Your task to perform on an android device: toggle notifications settings in the gmail app Image 0: 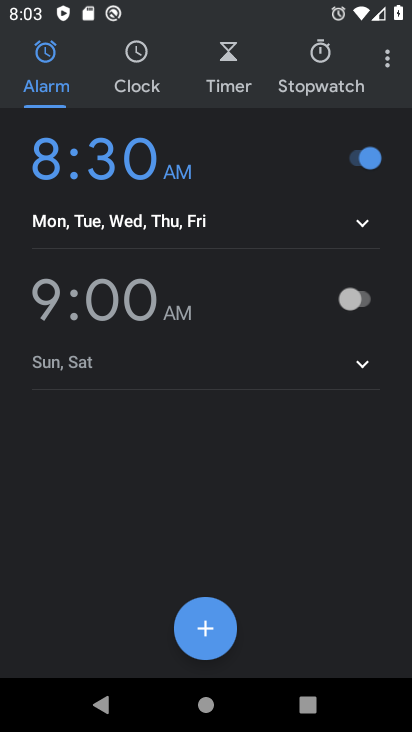
Step 0: press home button
Your task to perform on an android device: toggle notifications settings in the gmail app Image 1: 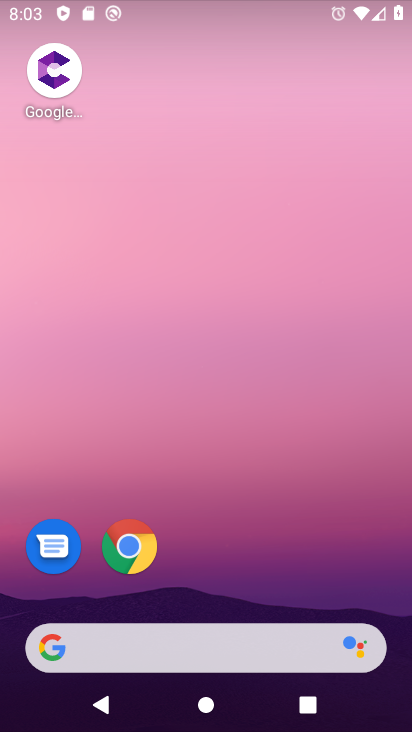
Step 1: drag from (265, 638) to (364, 4)
Your task to perform on an android device: toggle notifications settings in the gmail app Image 2: 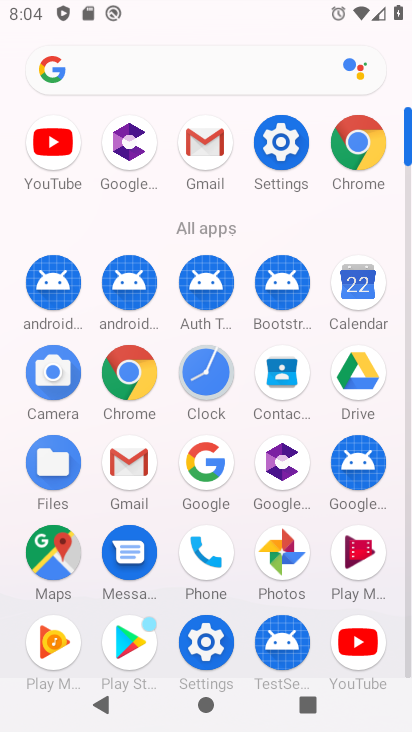
Step 2: click (126, 473)
Your task to perform on an android device: toggle notifications settings in the gmail app Image 3: 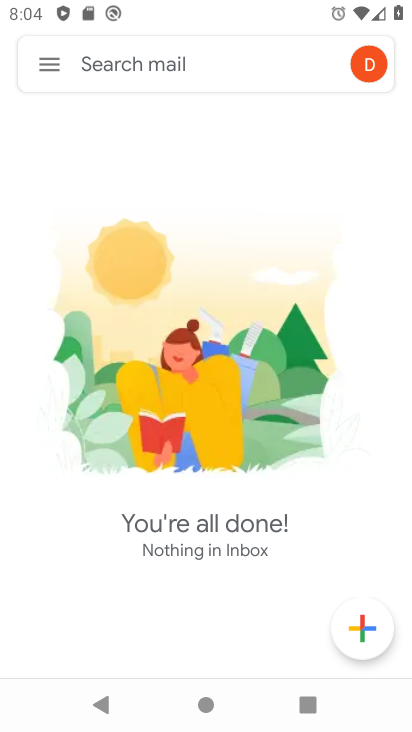
Step 3: drag from (46, 65) to (46, 105)
Your task to perform on an android device: toggle notifications settings in the gmail app Image 4: 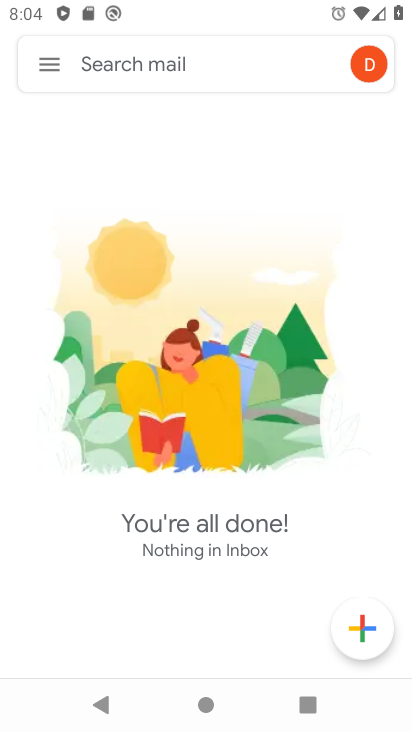
Step 4: click (48, 54)
Your task to perform on an android device: toggle notifications settings in the gmail app Image 5: 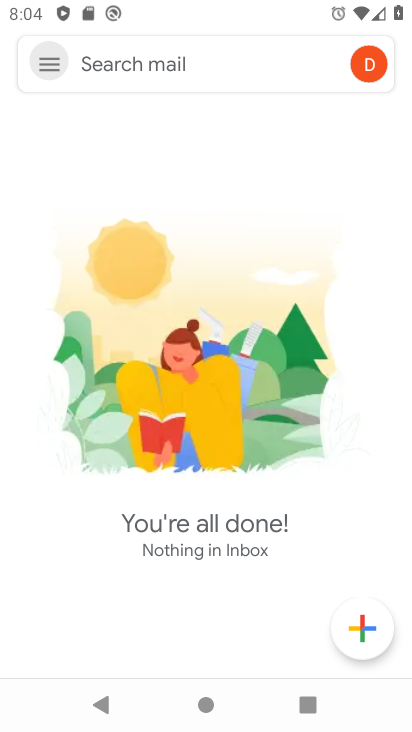
Step 5: click (51, 57)
Your task to perform on an android device: toggle notifications settings in the gmail app Image 6: 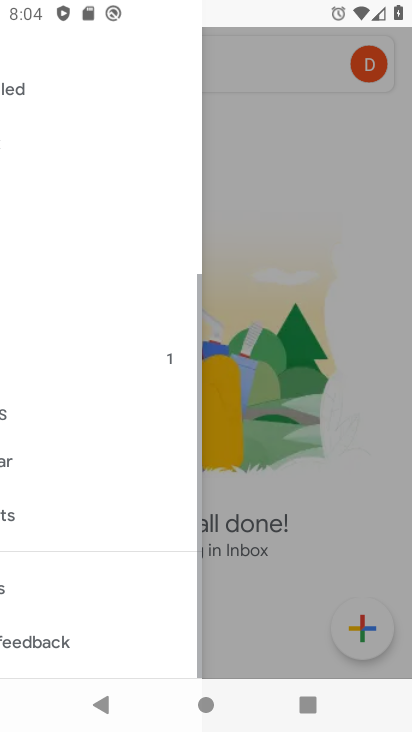
Step 6: click (51, 59)
Your task to perform on an android device: toggle notifications settings in the gmail app Image 7: 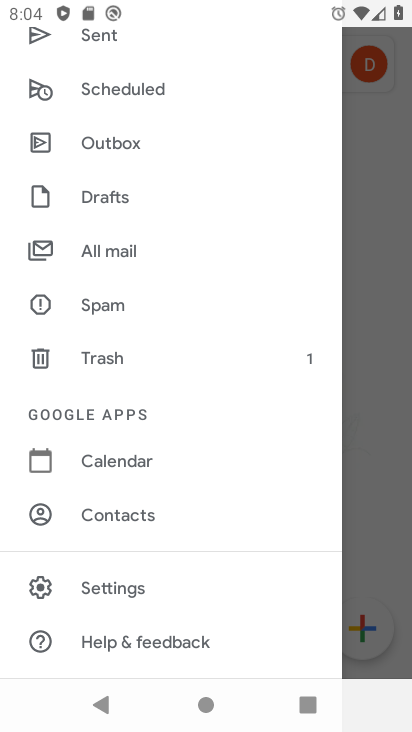
Step 7: click (99, 238)
Your task to perform on an android device: toggle notifications settings in the gmail app Image 8: 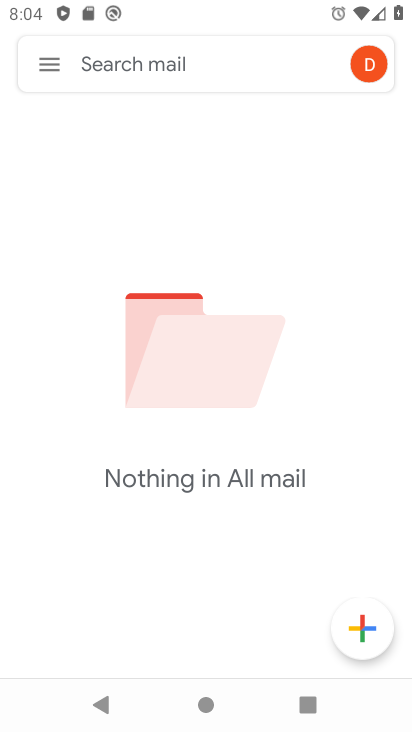
Step 8: click (40, 69)
Your task to perform on an android device: toggle notifications settings in the gmail app Image 9: 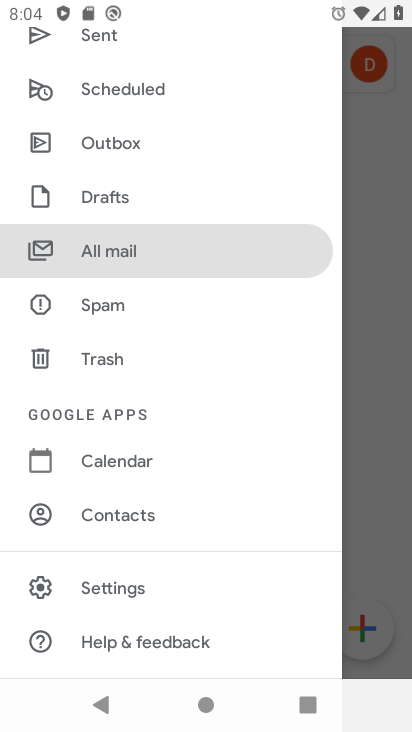
Step 9: click (93, 589)
Your task to perform on an android device: toggle notifications settings in the gmail app Image 10: 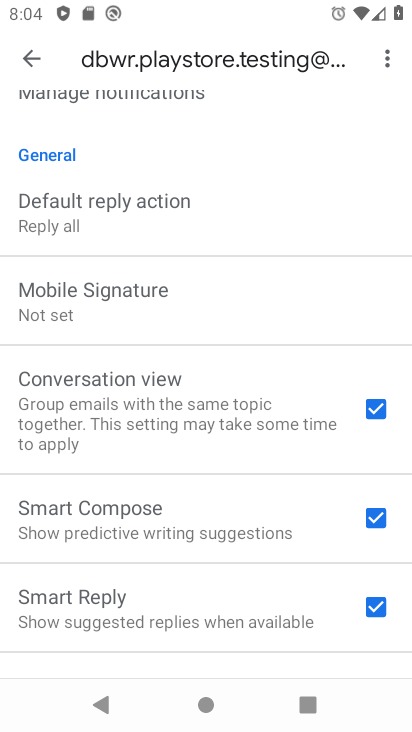
Step 10: drag from (116, 587) to (107, 192)
Your task to perform on an android device: toggle notifications settings in the gmail app Image 11: 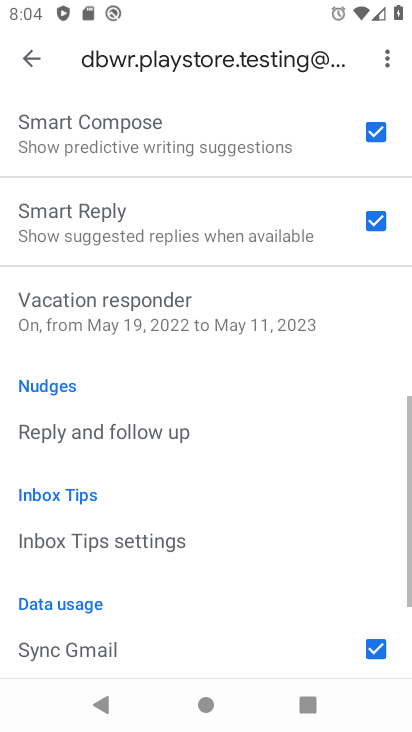
Step 11: drag from (117, 372) to (125, 203)
Your task to perform on an android device: toggle notifications settings in the gmail app Image 12: 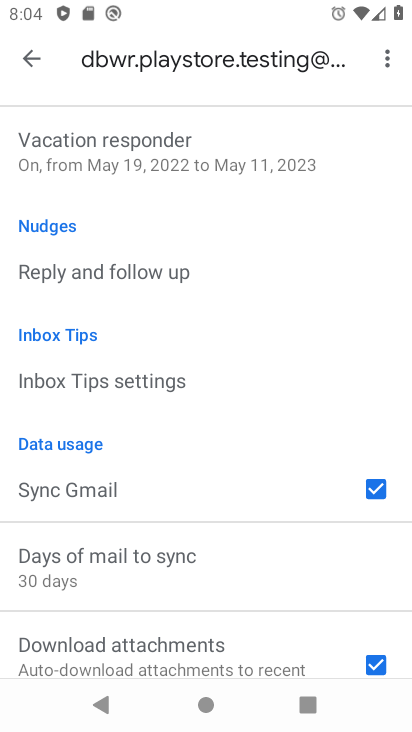
Step 12: drag from (137, 240) to (136, 534)
Your task to perform on an android device: toggle notifications settings in the gmail app Image 13: 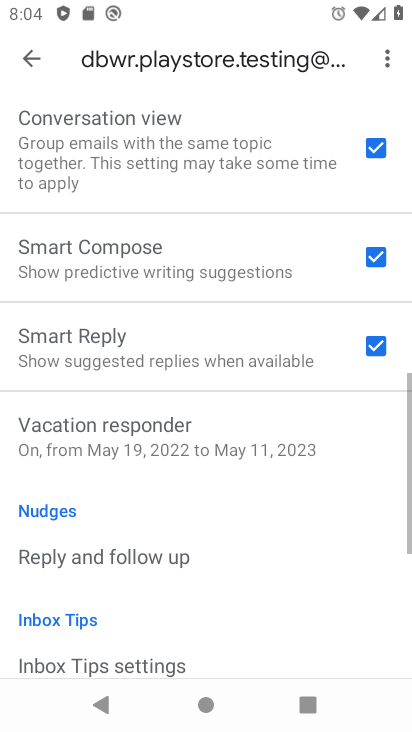
Step 13: drag from (142, 289) to (166, 466)
Your task to perform on an android device: toggle notifications settings in the gmail app Image 14: 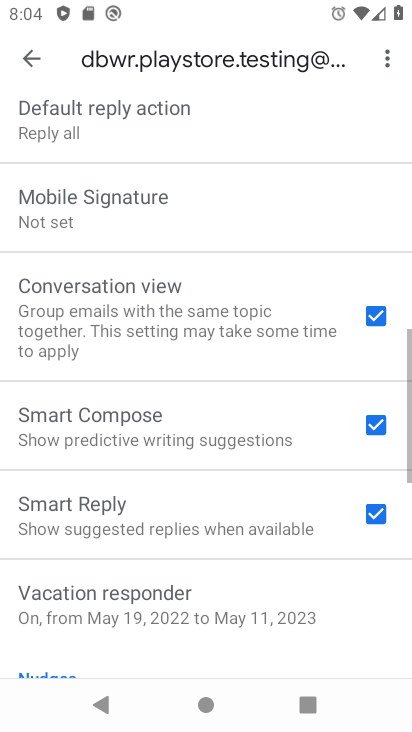
Step 14: drag from (147, 366) to (147, 475)
Your task to perform on an android device: toggle notifications settings in the gmail app Image 15: 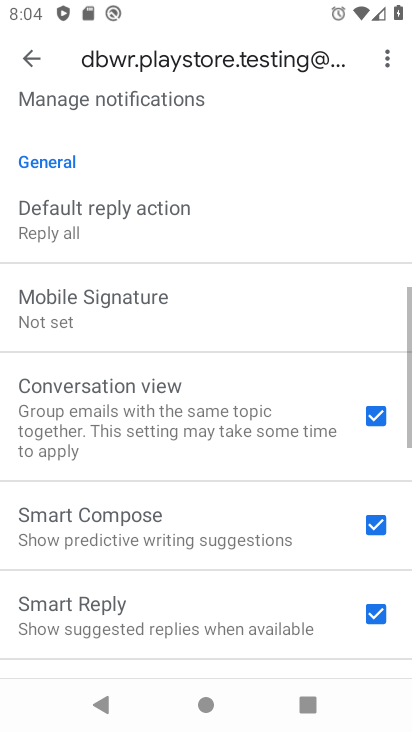
Step 15: drag from (116, 295) to (149, 491)
Your task to perform on an android device: toggle notifications settings in the gmail app Image 16: 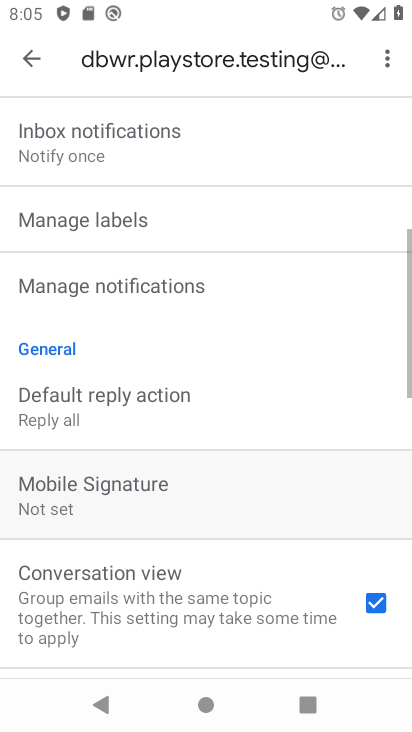
Step 16: drag from (174, 294) to (242, 489)
Your task to perform on an android device: toggle notifications settings in the gmail app Image 17: 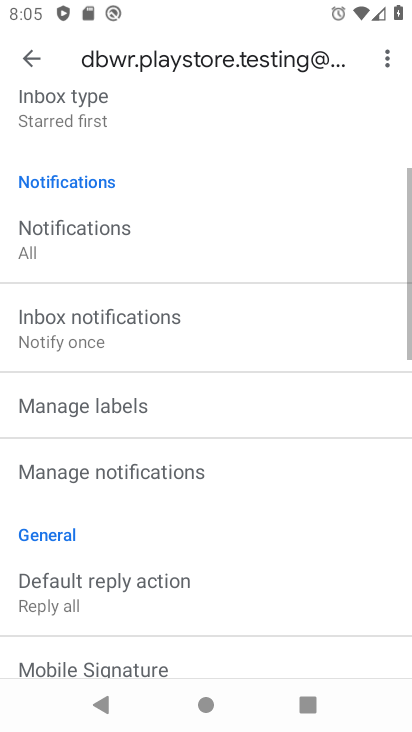
Step 17: drag from (233, 472) to (239, 611)
Your task to perform on an android device: toggle notifications settings in the gmail app Image 18: 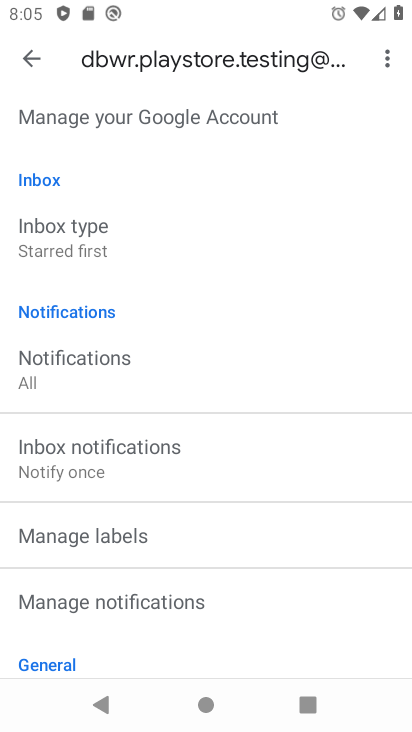
Step 18: click (90, 363)
Your task to perform on an android device: toggle notifications settings in the gmail app Image 19: 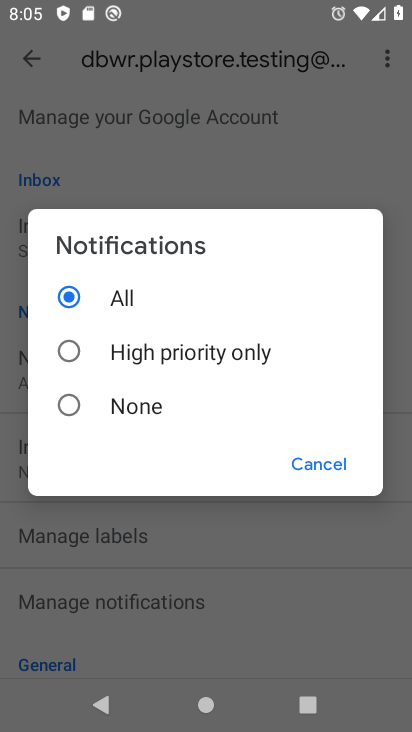
Step 19: click (62, 340)
Your task to perform on an android device: toggle notifications settings in the gmail app Image 20: 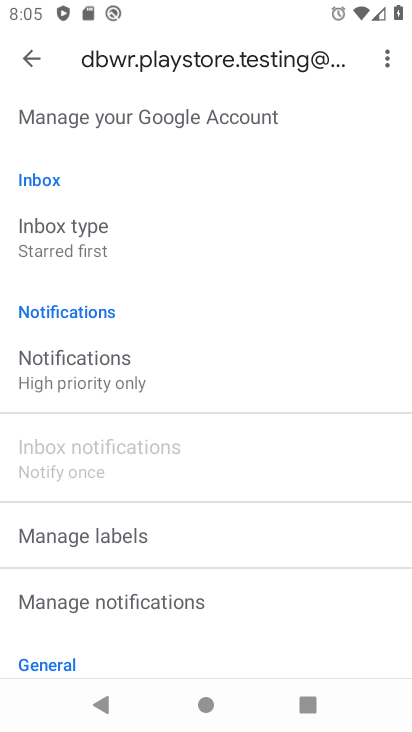
Step 20: task complete